Your task to perform on an android device: Open the stopwatch Image 0: 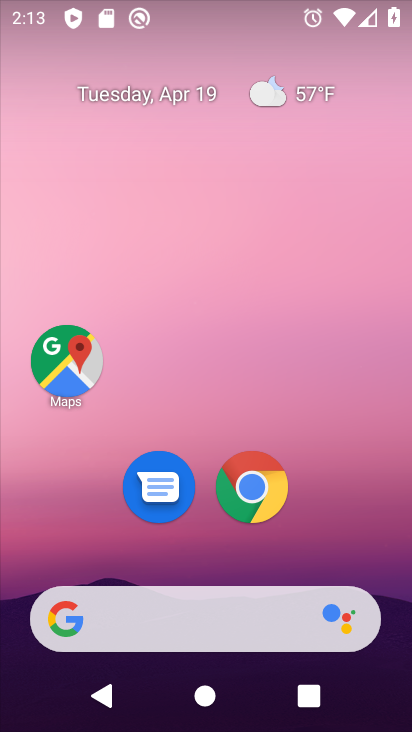
Step 0: drag from (372, 529) to (357, 103)
Your task to perform on an android device: Open the stopwatch Image 1: 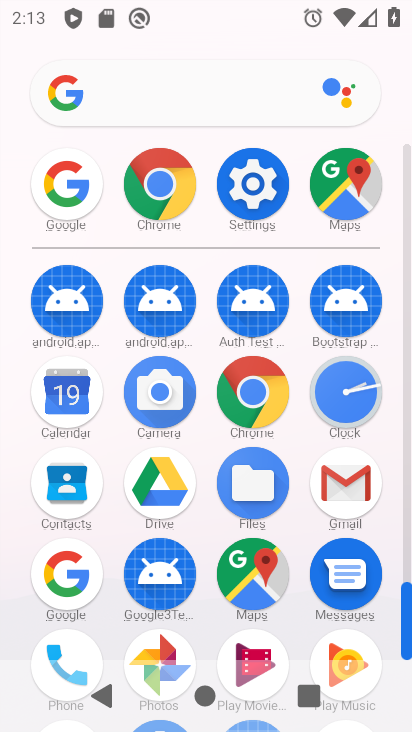
Step 1: click (355, 382)
Your task to perform on an android device: Open the stopwatch Image 2: 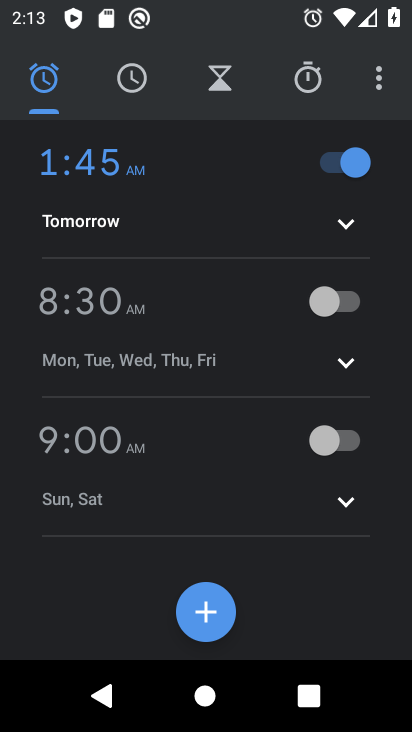
Step 2: click (303, 82)
Your task to perform on an android device: Open the stopwatch Image 3: 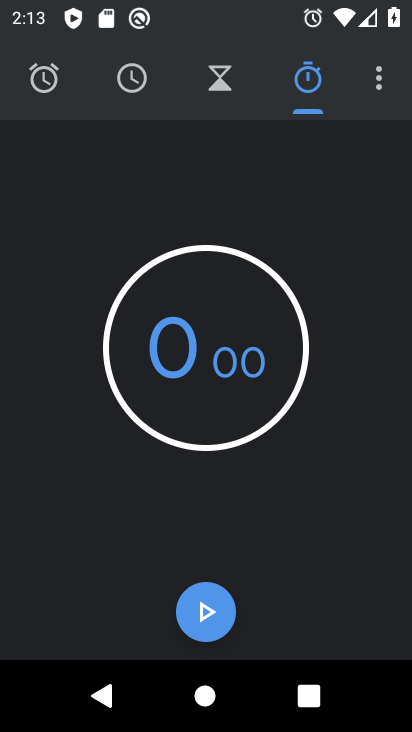
Step 3: task complete